Your task to perform on an android device: turn on showing notifications on the lock screen Image 0: 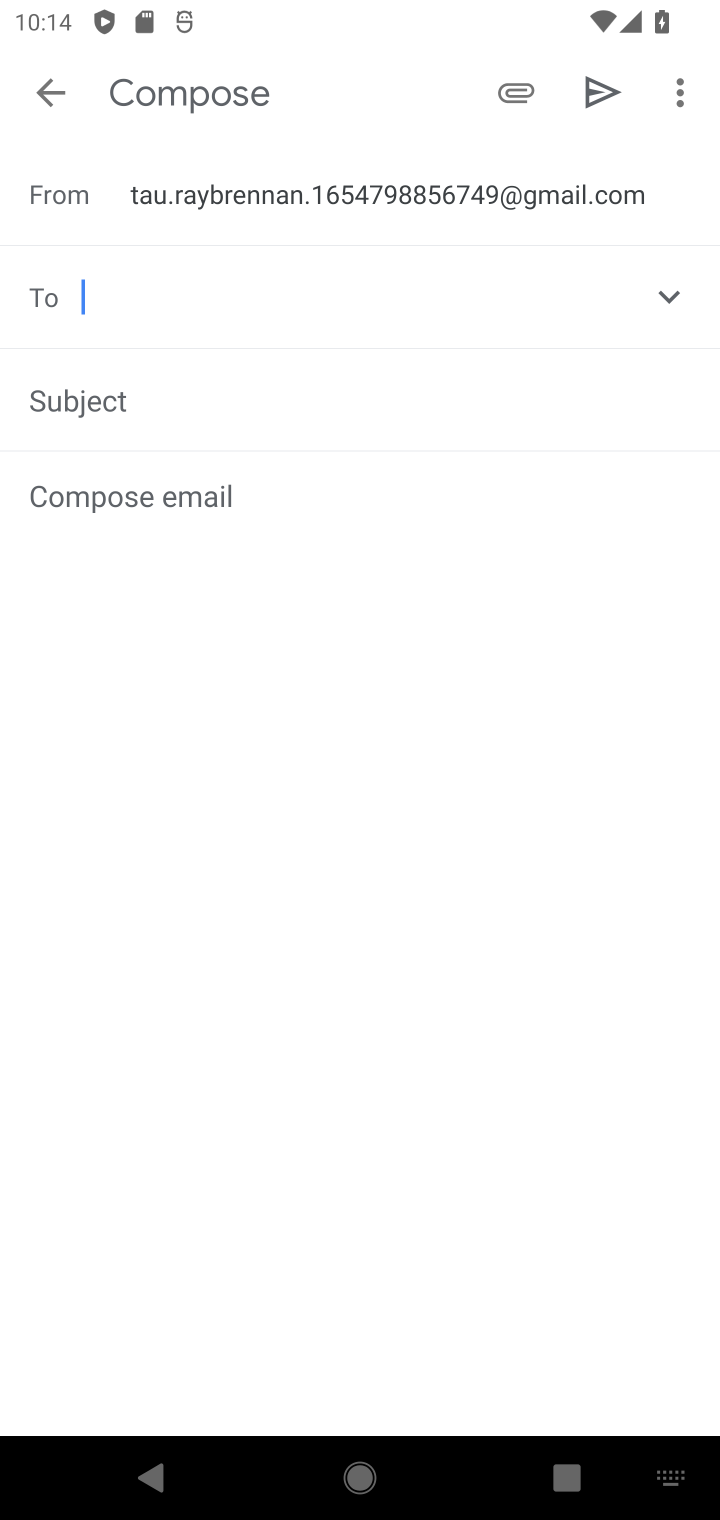
Step 0: press home button
Your task to perform on an android device: turn on showing notifications on the lock screen Image 1: 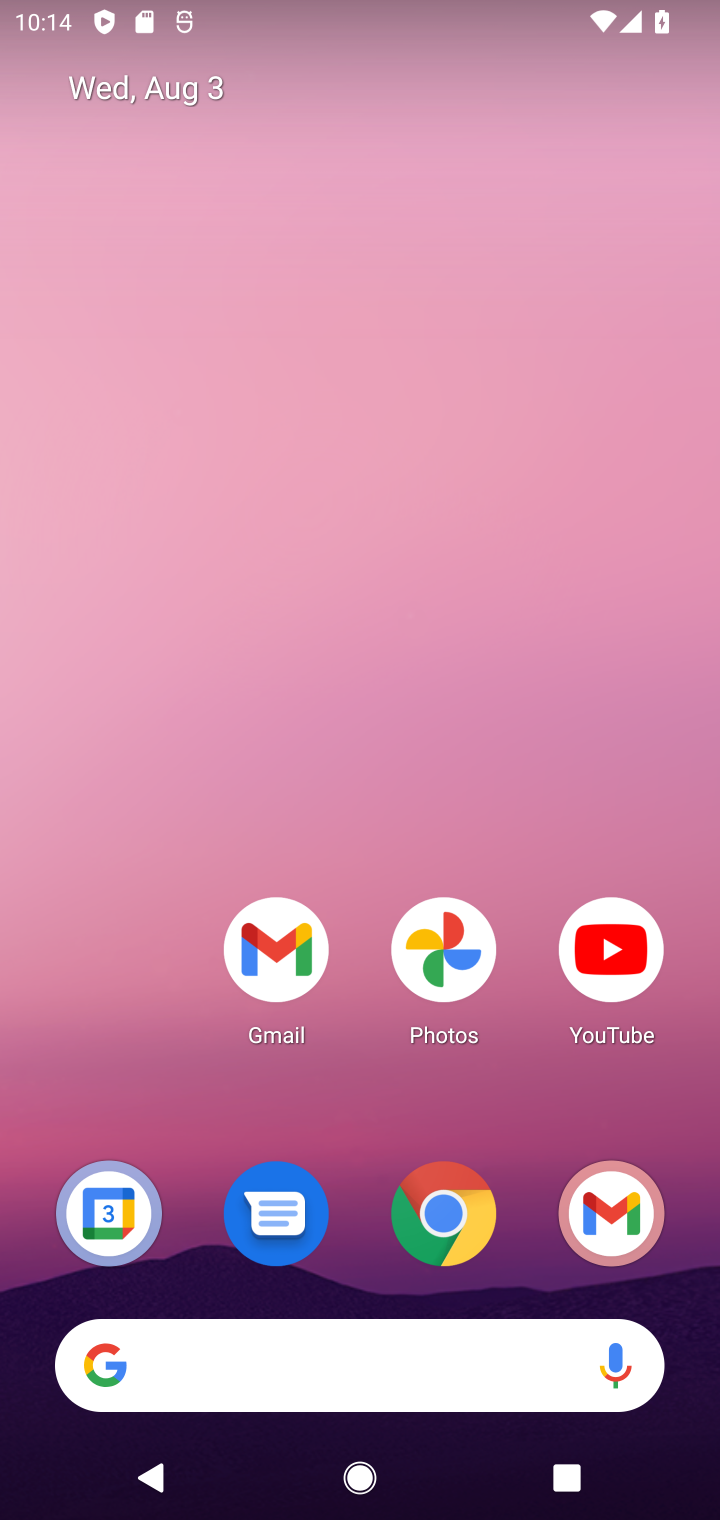
Step 1: drag from (409, 1124) to (297, 166)
Your task to perform on an android device: turn on showing notifications on the lock screen Image 2: 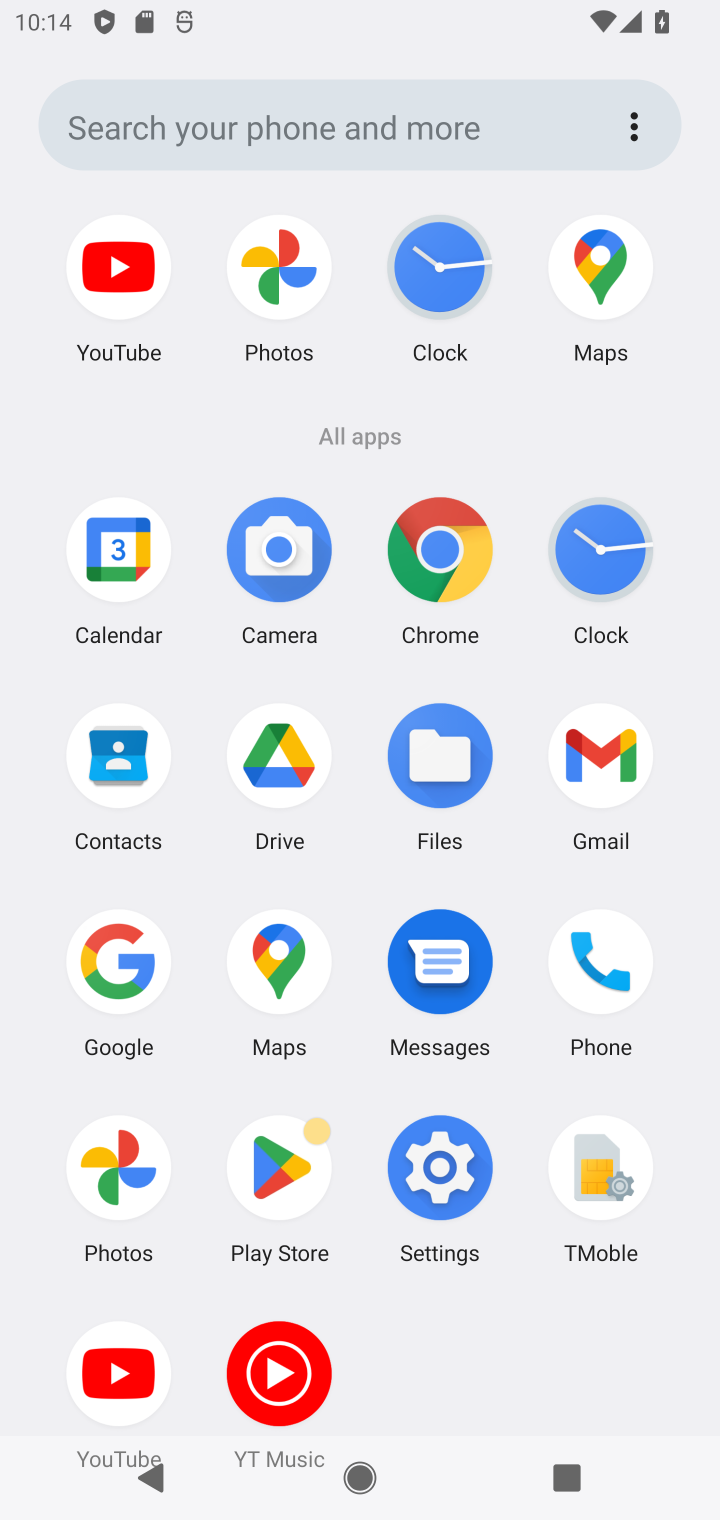
Step 2: click (454, 1142)
Your task to perform on an android device: turn on showing notifications on the lock screen Image 3: 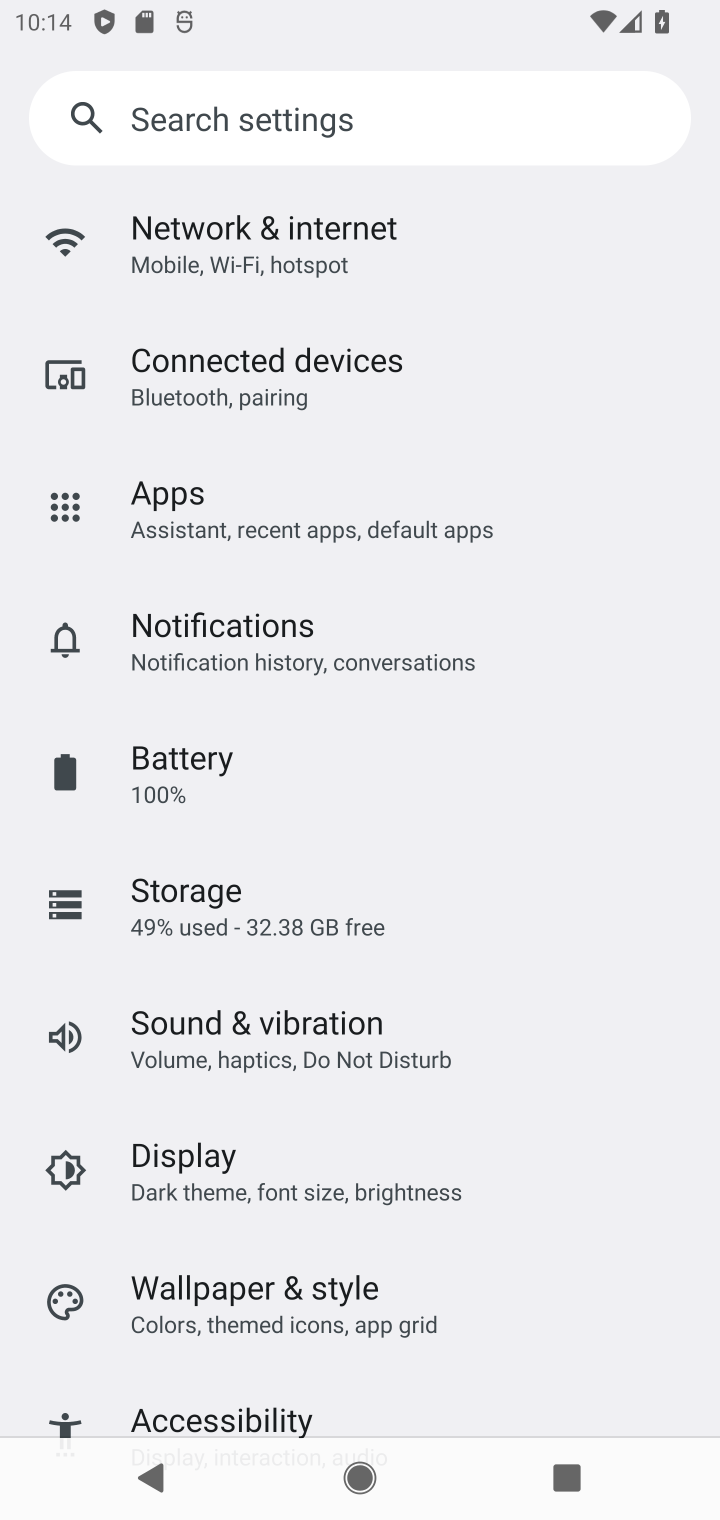
Step 3: click (357, 637)
Your task to perform on an android device: turn on showing notifications on the lock screen Image 4: 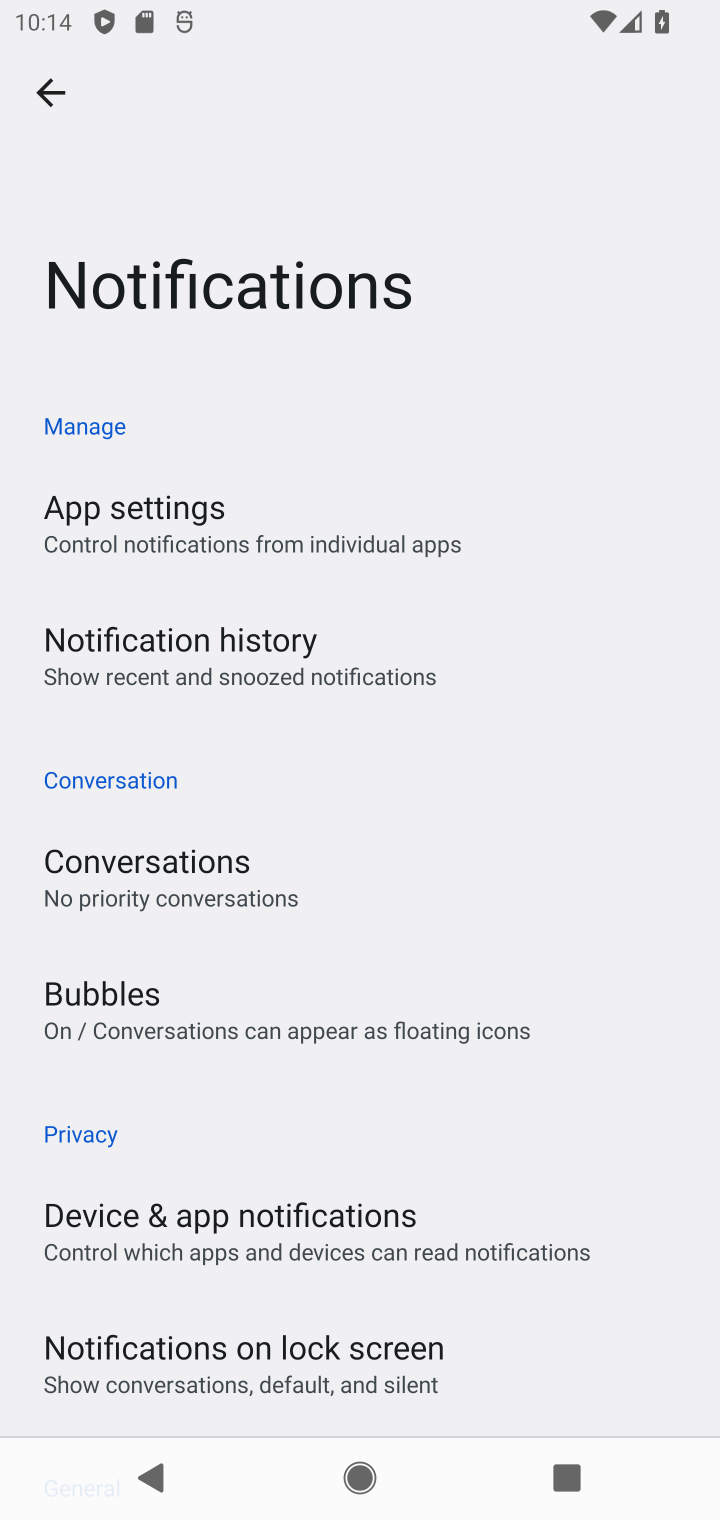
Step 4: click (427, 1356)
Your task to perform on an android device: turn on showing notifications on the lock screen Image 5: 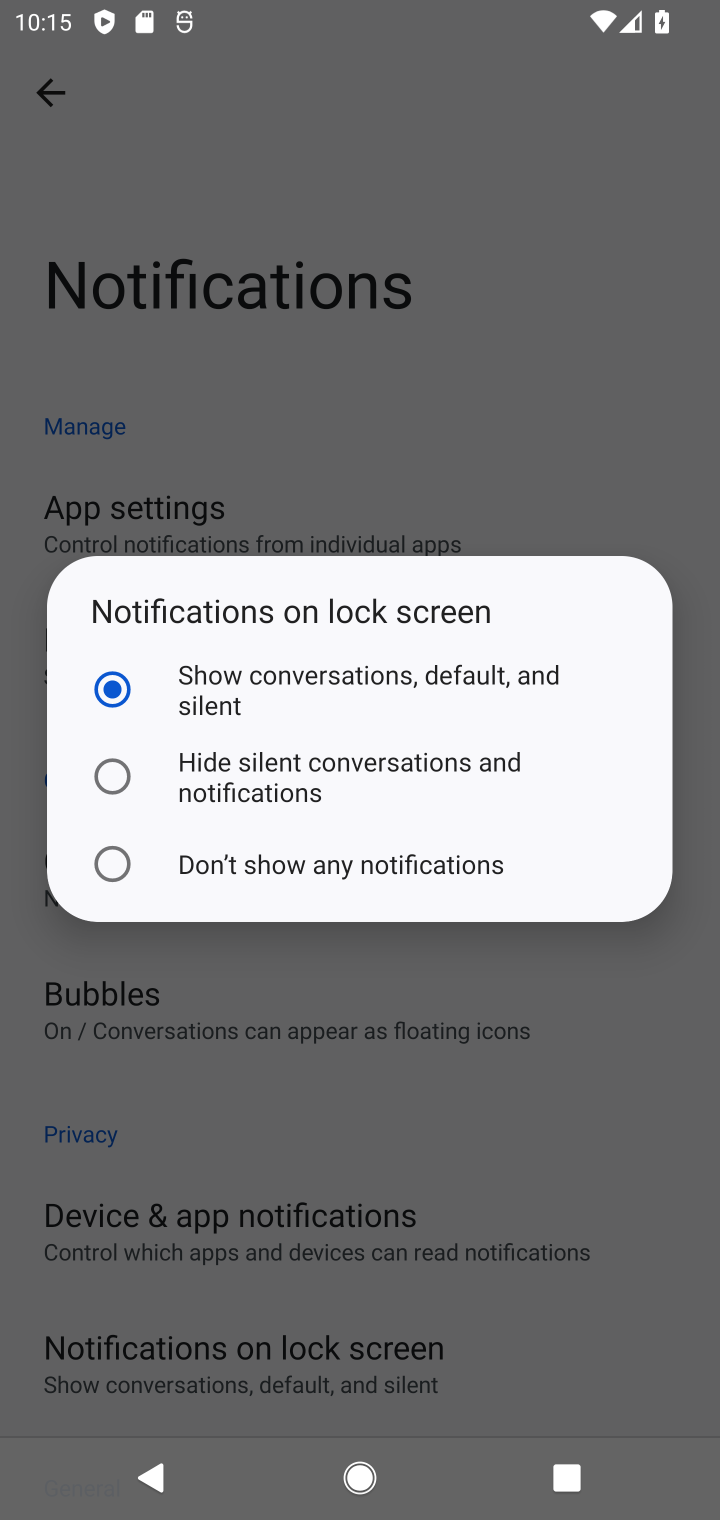
Step 5: task complete